Your task to perform on an android device: Go to sound settings Image 0: 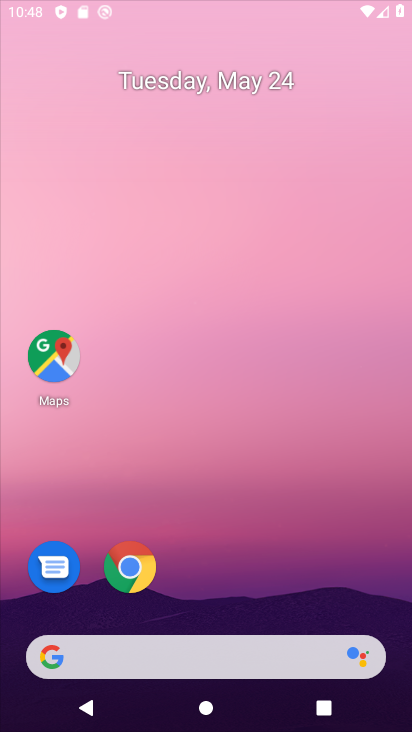
Step 0: press home button
Your task to perform on an android device: Go to sound settings Image 1: 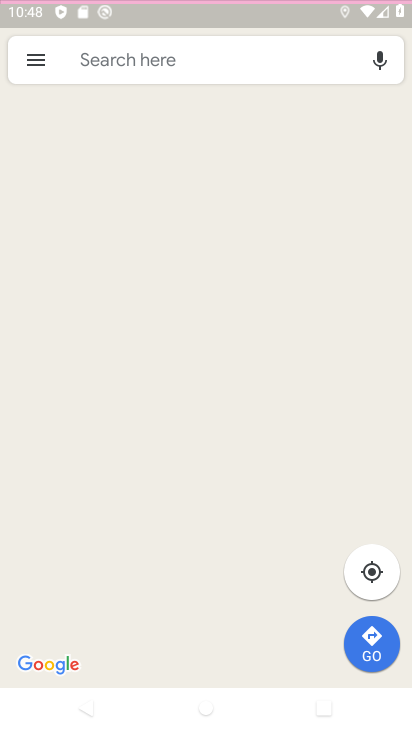
Step 1: click (56, 353)
Your task to perform on an android device: Go to sound settings Image 2: 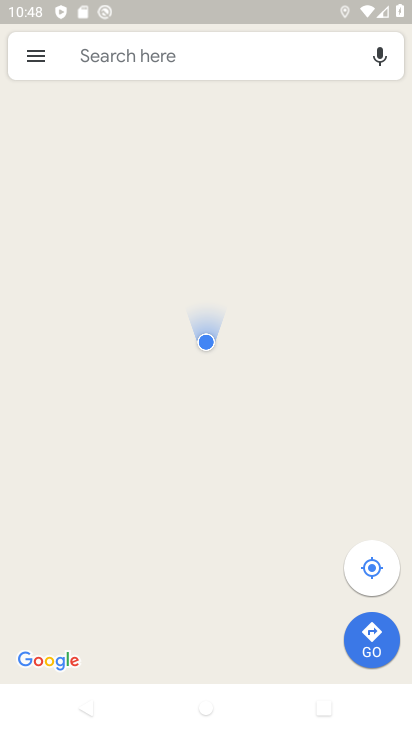
Step 2: press home button
Your task to perform on an android device: Go to sound settings Image 3: 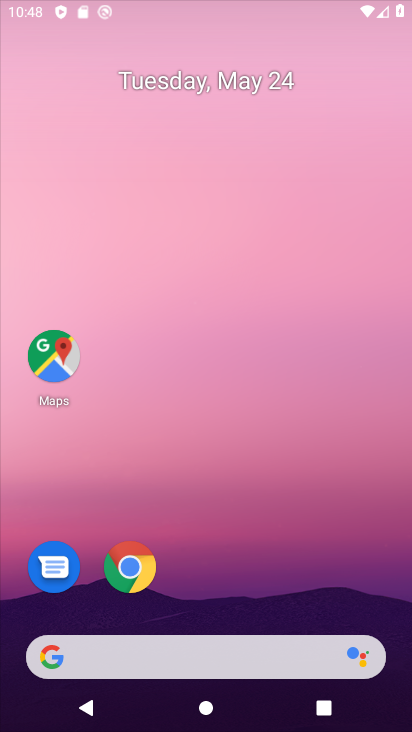
Step 3: drag from (304, 463) to (212, 23)
Your task to perform on an android device: Go to sound settings Image 4: 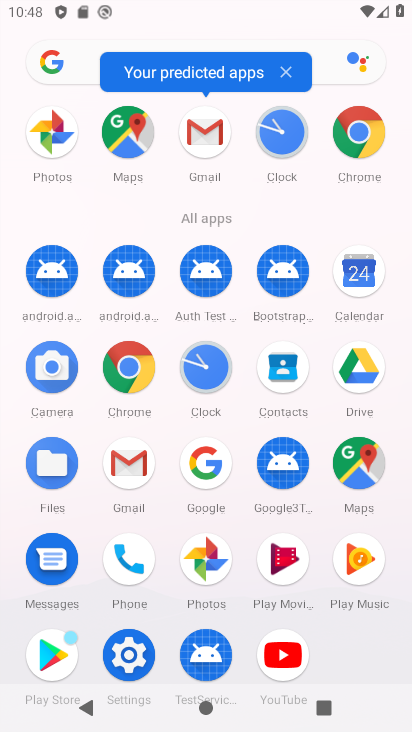
Step 4: click (138, 641)
Your task to perform on an android device: Go to sound settings Image 5: 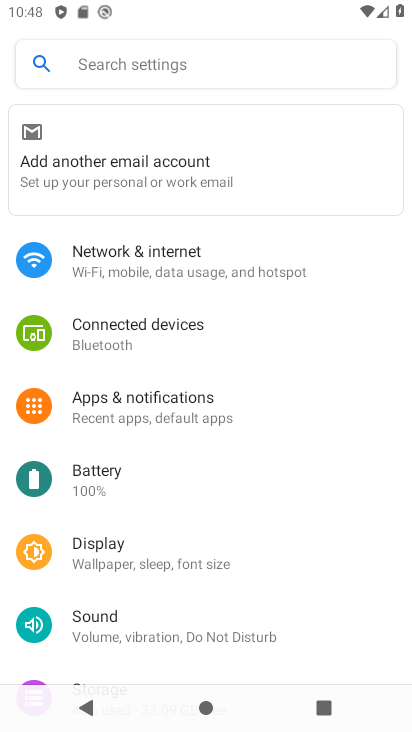
Step 5: click (156, 620)
Your task to perform on an android device: Go to sound settings Image 6: 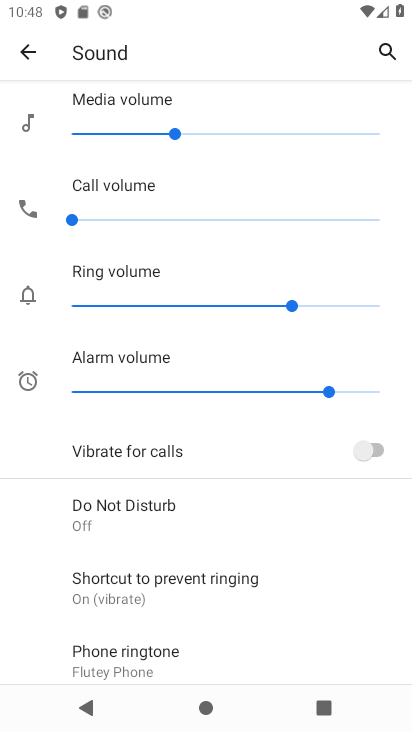
Step 6: task complete